Your task to perform on an android device: toggle notification dots Image 0: 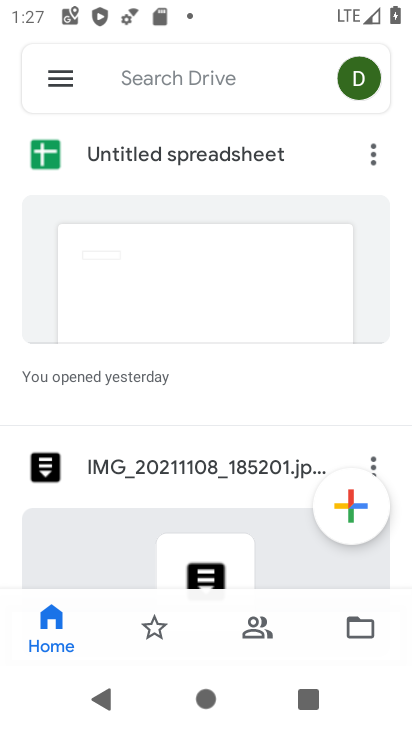
Step 0: press home button
Your task to perform on an android device: toggle notification dots Image 1: 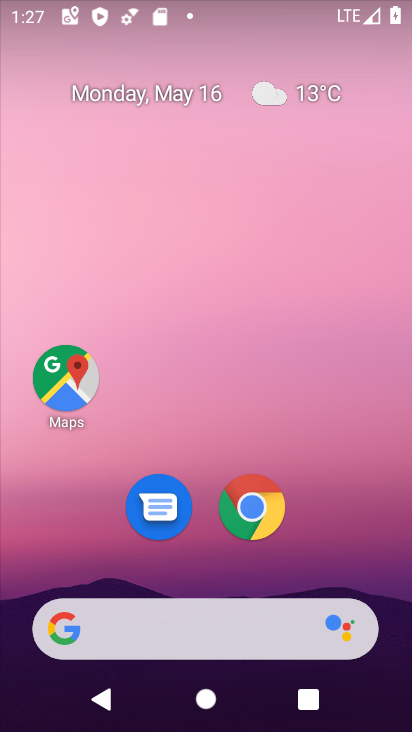
Step 1: drag from (329, 527) to (220, 29)
Your task to perform on an android device: toggle notification dots Image 2: 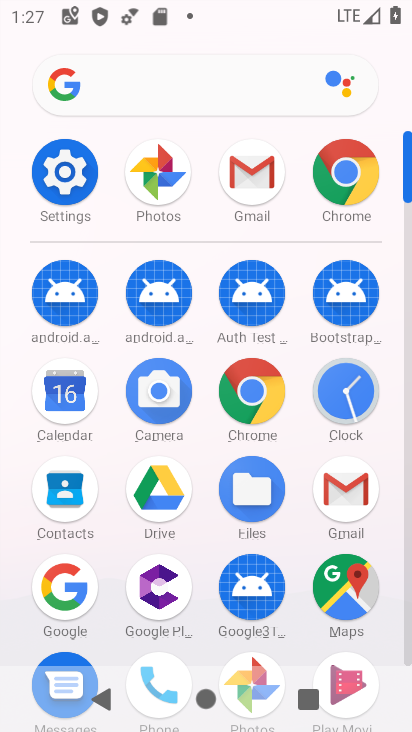
Step 2: click (68, 193)
Your task to perform on an android device: toggle notification dots Image 3: 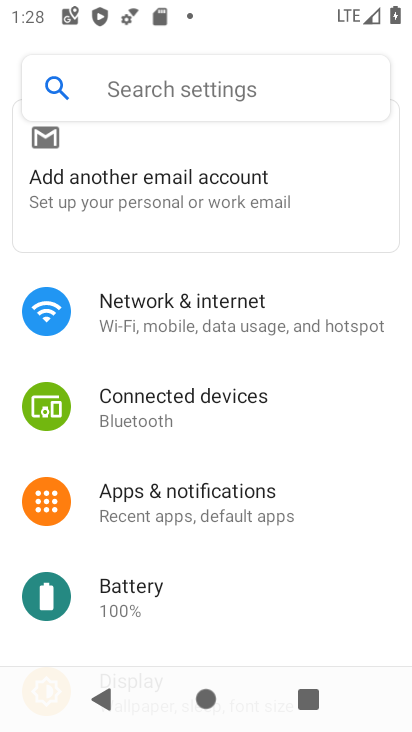
Step 3: click (224, 493)
Your task to perform on an android device: toggle notification dots Image 4: 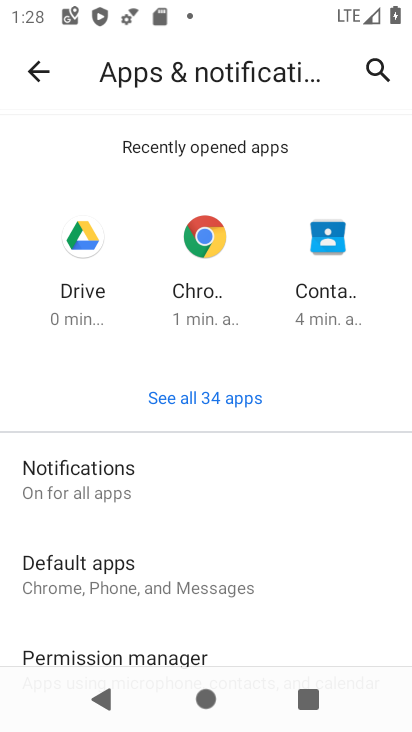
Step 4: click (197, 491)
Your task to perform on an android device: toggle notification dots Image 5: 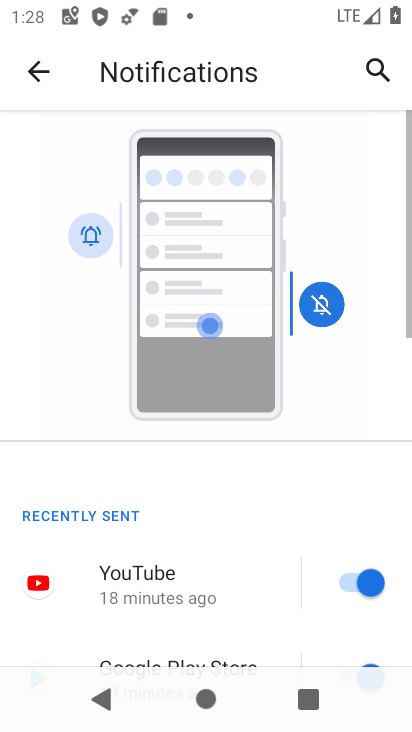
Step 5: drag from (229, 606) to (242, 262)
Your task to perform on an android device: toggle notification dots Image 6: 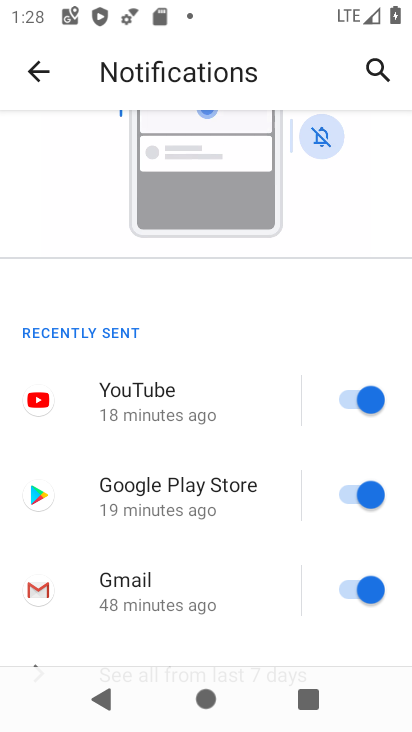
Step 6: drag from (217, 530) to (220, 189)
Your task to perform on an android device: toggle notification dots Image 7: 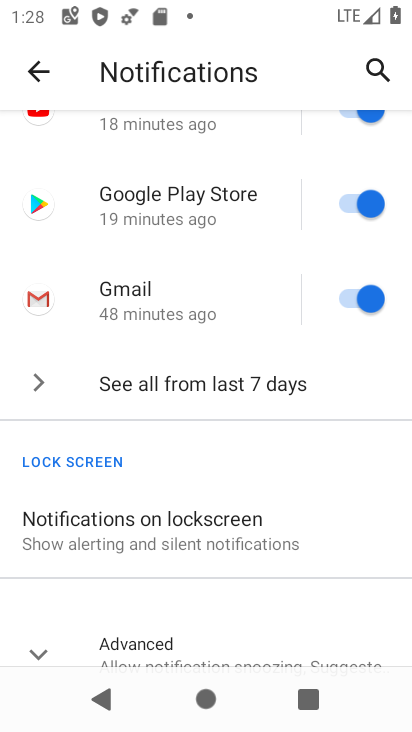
Step 7: drag from (234, 598) to (235, 336)
Your task to perform on an android device: toggle notification dots Image 8: 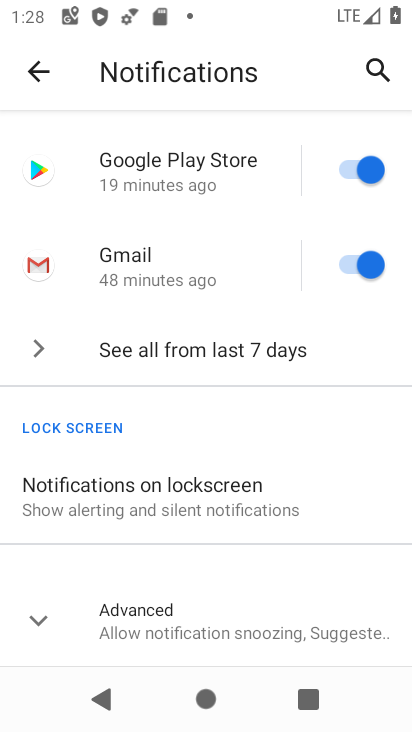
Step 8: click (222, 622)
Your task to perform on an android device: toggle notification dots Image 9: 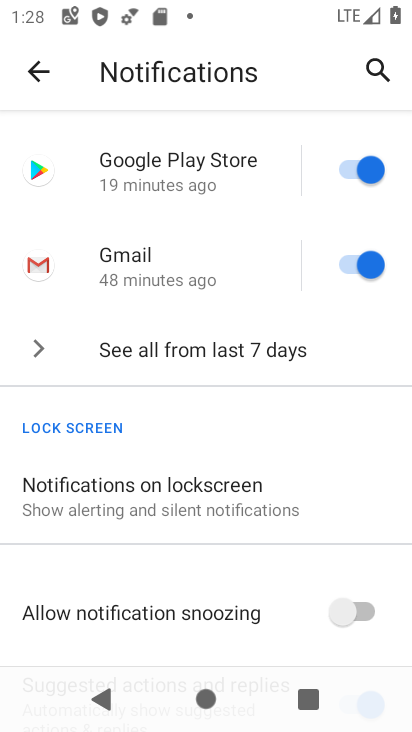
Step 9: drag from (280, 574) to (277, 200)
Your task to perform on an android device: toggle notification dots Image 10: 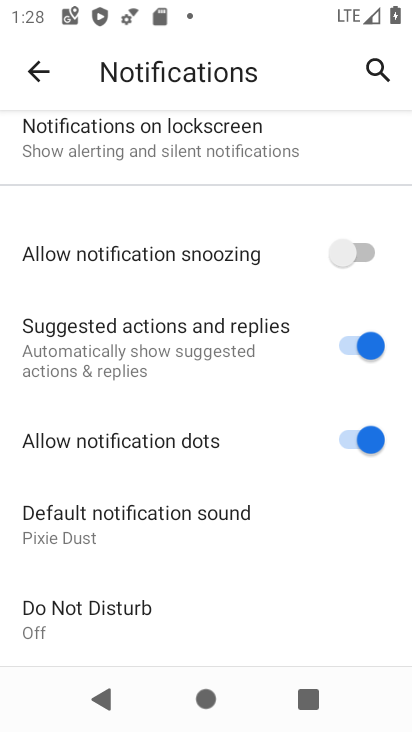
Step 10: click (372, 431)
Your task to perform on an android device: toggle notification dots Image 11: 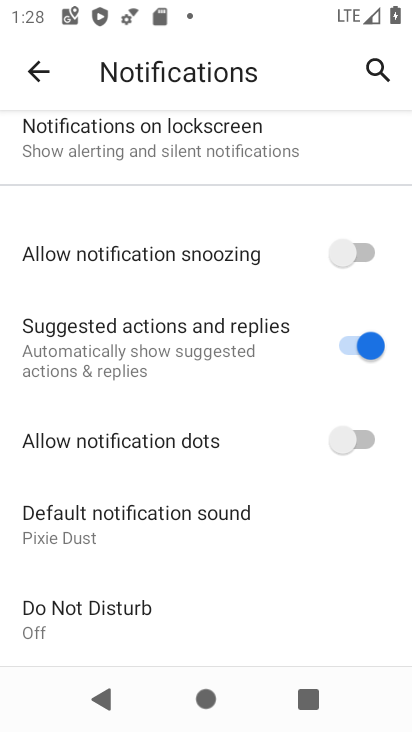
Step 11: task complete